Your task to perform on an android device: Open CNN.com Image 0: 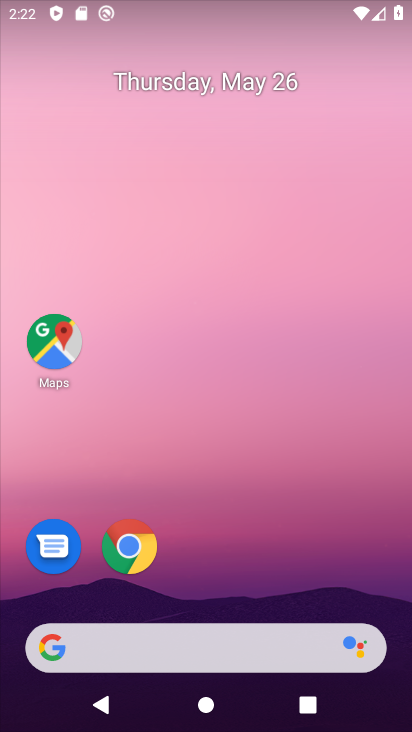
Step 0: click (136, 539)
Your task to perform on an android device: Open CNN.com Image 1: 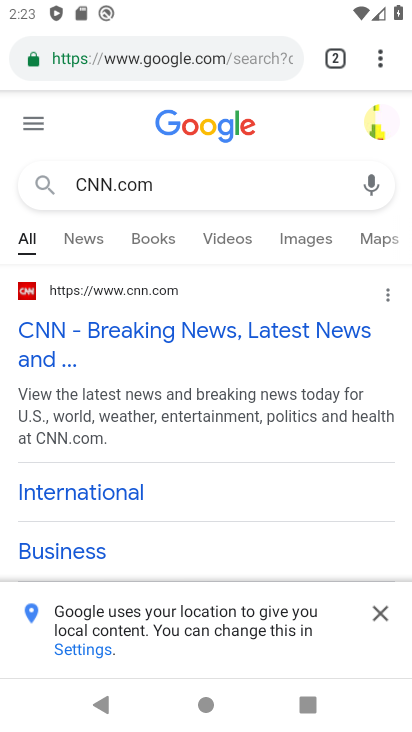
Step 1: task complete